Your task to perform on an android device: allow notifications from all sites in the chrome app Image 0: 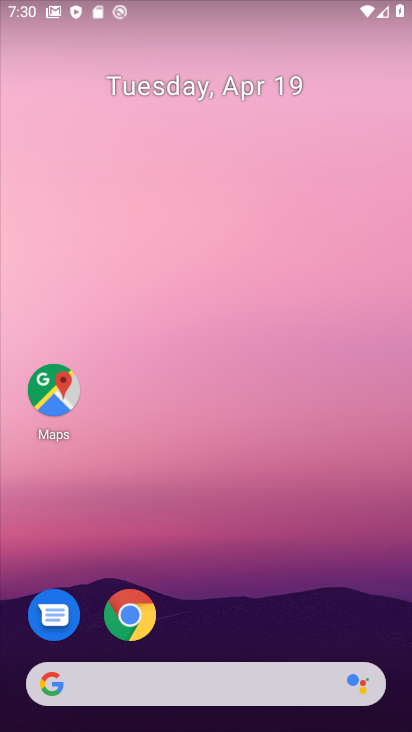
Step 0: drag from (270, 8) to (245, 686)
Your task to perform on an android device: allow notifications from all sites in the chrome app Image 1: 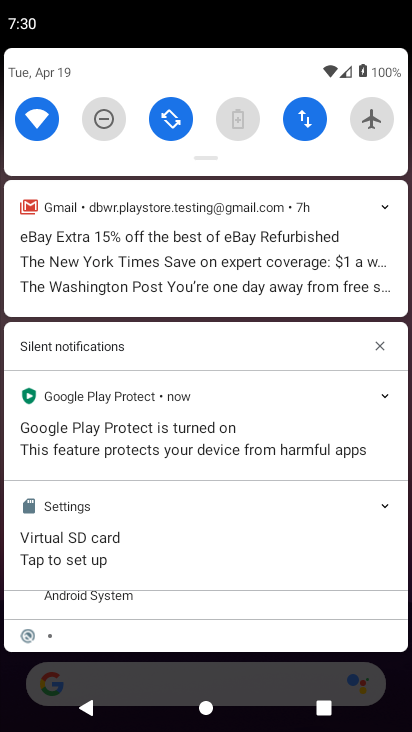
Step 1: drag from (203, 59) to (164, 588)
Your task to perform on an android device: allow notifications from all sites in the chrome app Image 2: 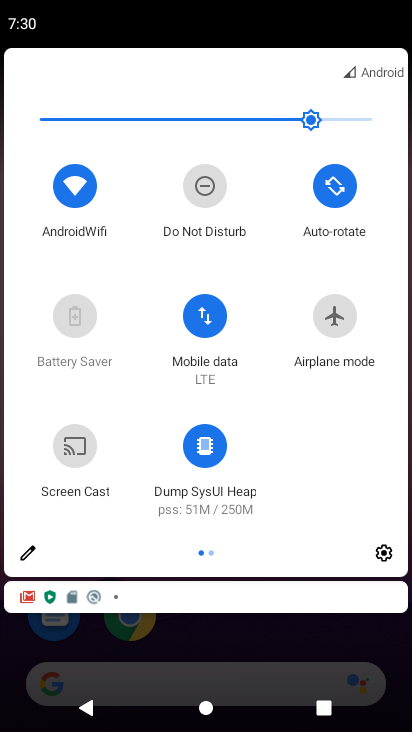
Step 2: click (381, 544)
Your task to perform on an android device: allow notifications from all sites in the chrome app Image 3: 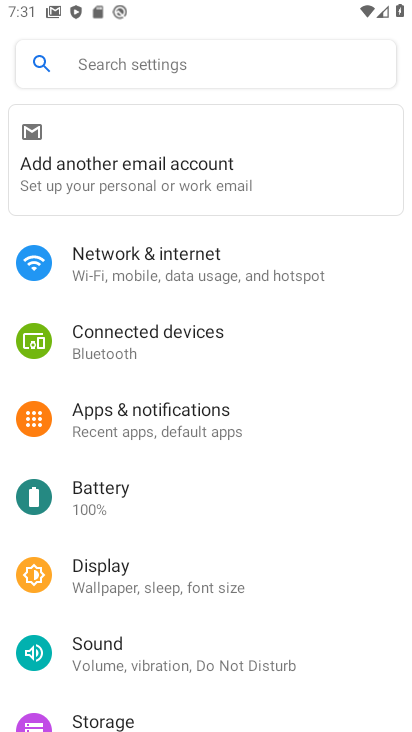
Step 3: click (195, 423)
Your task to perform on an android device: allow notifications from all sites in the chrome app Image 4: 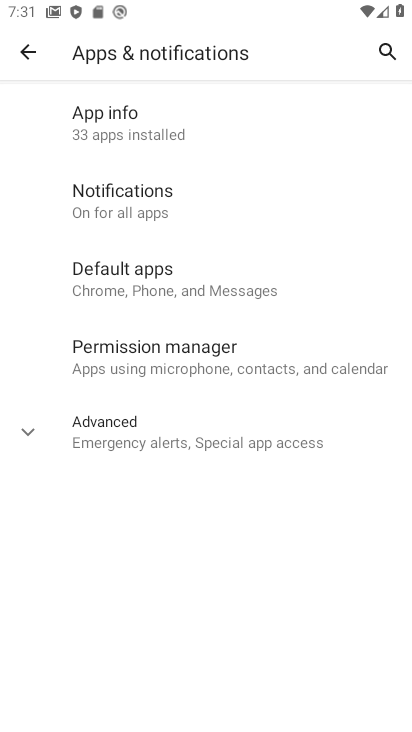
Step 4: click (139, 195)
Your task to perform on an android device: allow notifications from all sites in the chrome app Image 5: 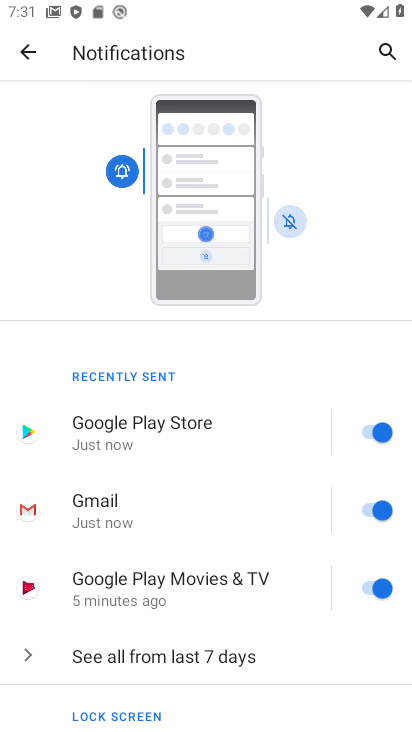
Step 5: click (200, 656)
Your task to perform on an android device: allow notifications from all sites in the chrome app Image 6: 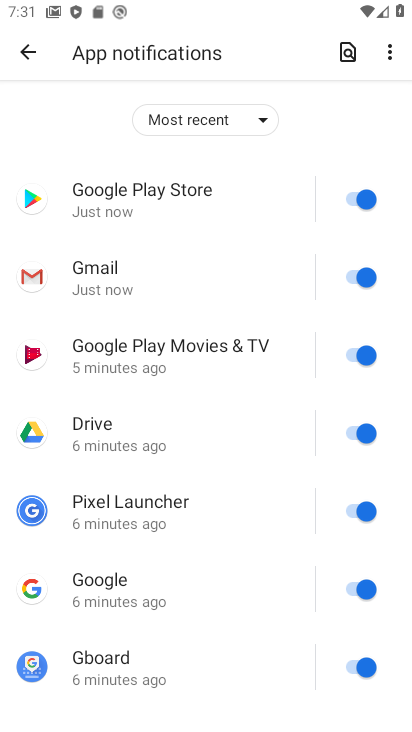
Step 6: drag from (81, 626) to (68, 187)
Your task to perform on an android device: allow notifications from all sites in the chrome app Image 7: 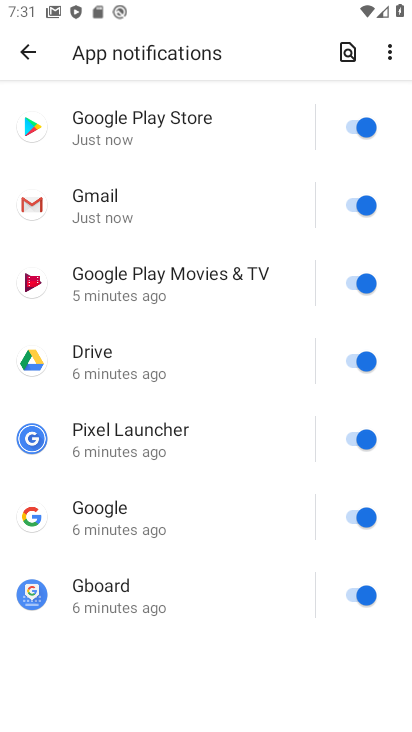
Step 7: drag from (126, 633) to (209, 125)
Your task to perform on an android device: allow notifications from all sites in the chrome app Image 8: 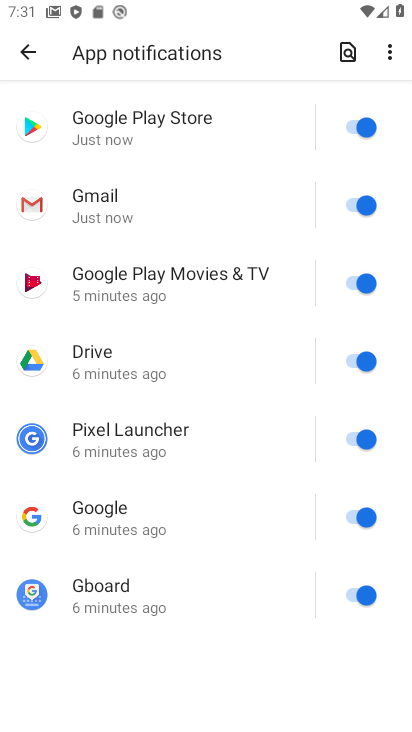
Step 8: click (20, 50)
Your task to perform on an android device: allow notifications from all sites in the chrome app Image 9: 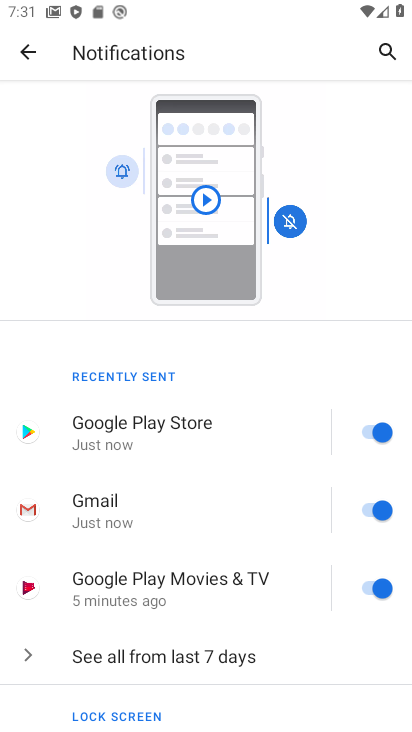
Step 9: drag from (178, 582) to (190, 116)
Your task to perform on an android device: allow notifications from all sites in the chrome app Image 10: 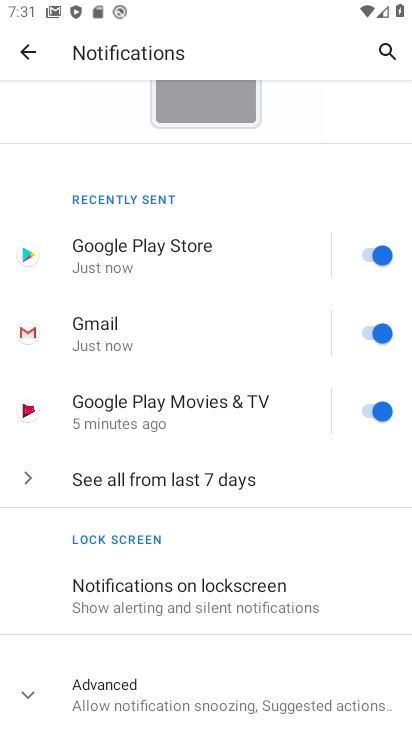
Step 10: drag from (216, 563) to (225, 174)
Your task to perform on an android device: allow notifications from all sites in the chrome app Image 11: 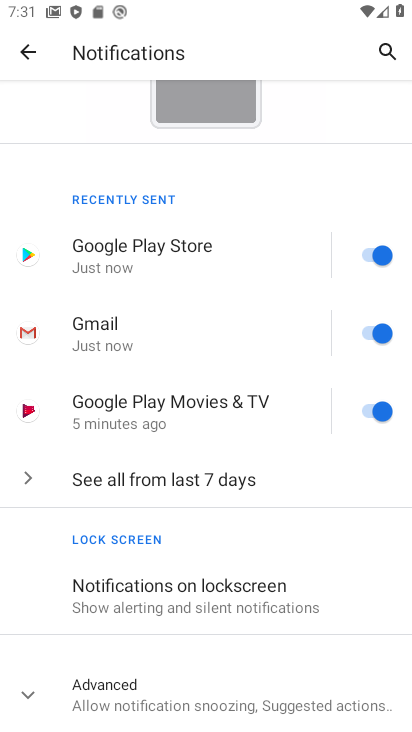
Step 11: click (26, 64)
Your task to perform on an android device: allow notifications from all sites in the chrome app Image 12: 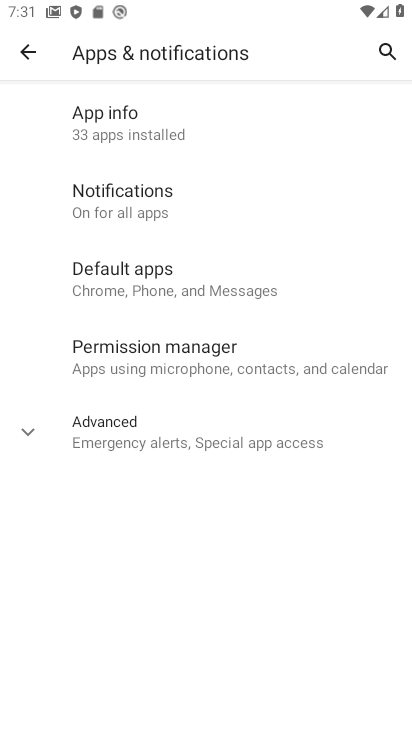
Step 12: click (29, 56)
Your task to perform on an android device: allow notifications from all sites in the chrome app Image 13: 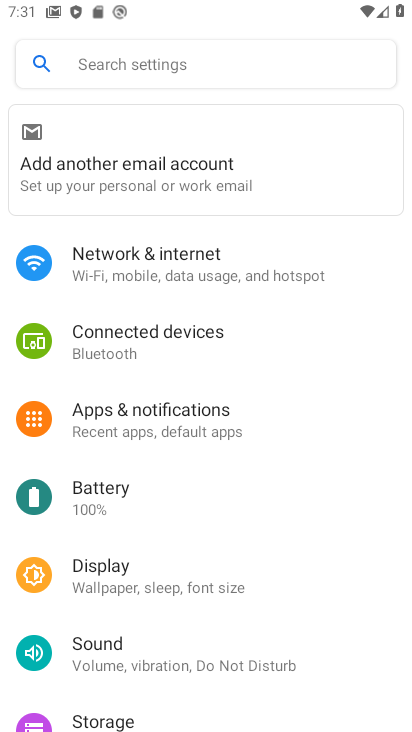
Step 13: click (148, 421)
Your task to perform on an android device: allow notifications from all sites in the chrome app Image 14: 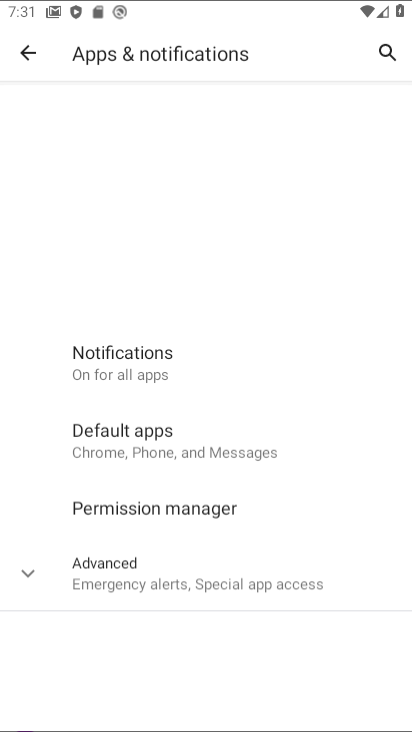
Step 14: click (148, 421)
Your task to perform on an android device: allow notifications from all sites in the chrome app Image 15: 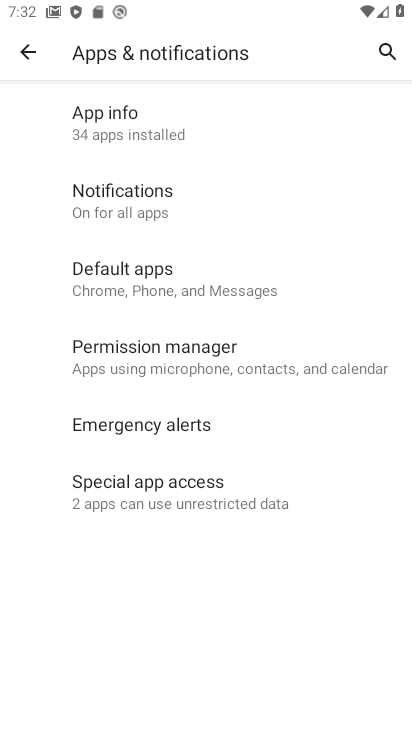
Step 15: click (152, 137)
Your task to perform on an android device: allow notifications from all sites in the chrome app Image 16: 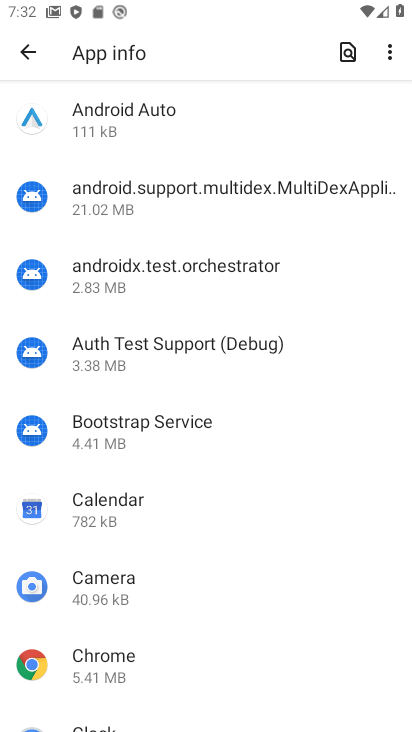
Step 16: click (103, 677)
Your task to perform on an android device: allow notifications from all sites in the chrome app Image 17: 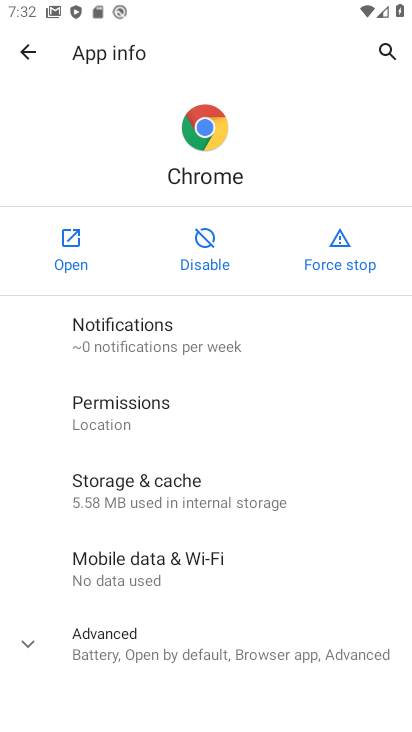
Step 17: click (202, 645)
Your task to perform on an android device: allow notifications from all sites in the chrome app Image 18: 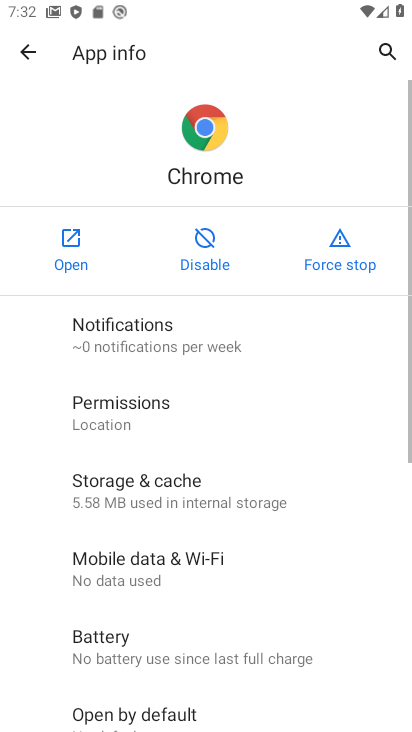
Step 18: drag from (202, 645) to (232, 253)
Your task to perform on an android device: allow notifications from all sites in the chrome app Image 19: 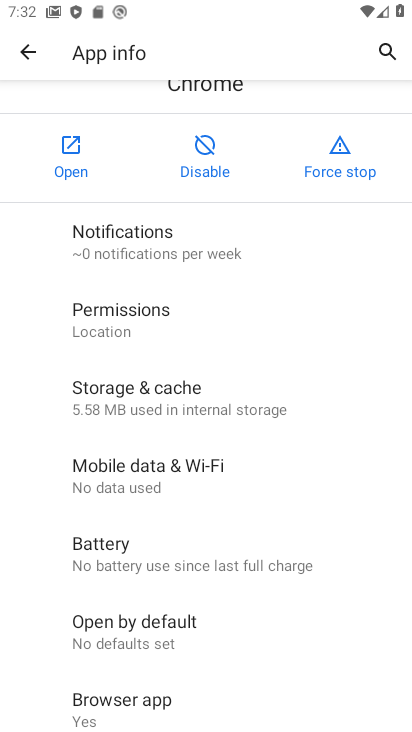
Step 19: drag from (202, 620) to (229, 202)
Your task to perform on an android device: allow notifications from all sites in the chrome app Image 20: 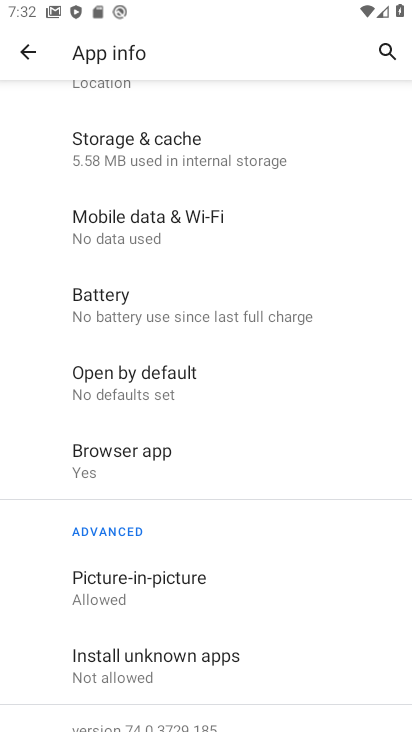
Step 20: drag from (288, 679) to (285, 295)
Your task to perform on an android device: allow notifications from all sites in the chrome app Image 21: 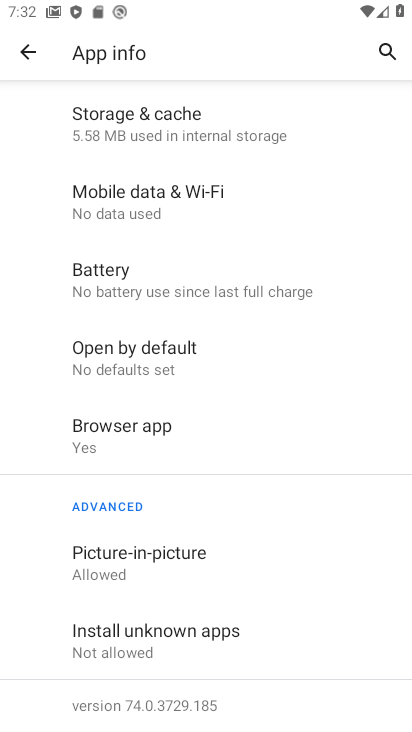
Step 21: drag from (285, 295) to (260, 606)
Your task to perform on an android device: allow notifications from all sites in the chrome app Image 22: 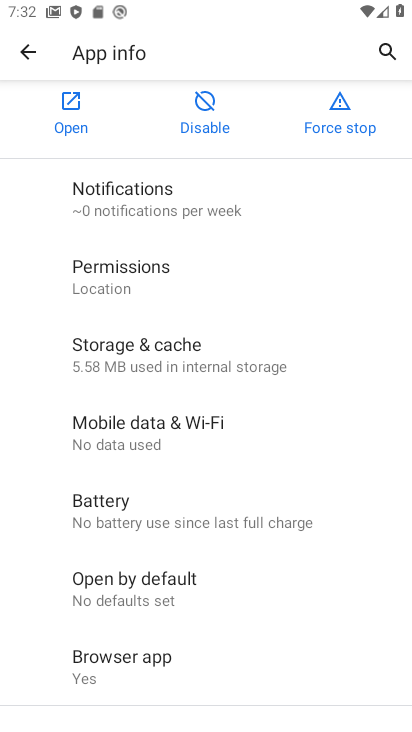
Step 22: click (137, 220)
Your task to perform on an android device: allow notifications from all sites in the chrome app Image 23: 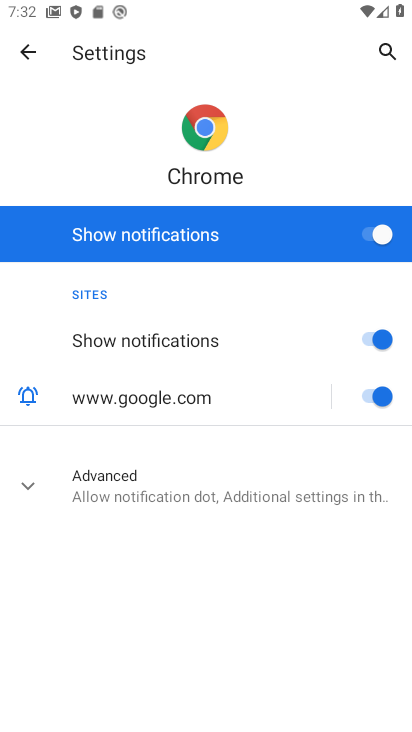
Step 23: task complete